Your task to perform on an android device: refresh tabs in the chrome app Image 0: 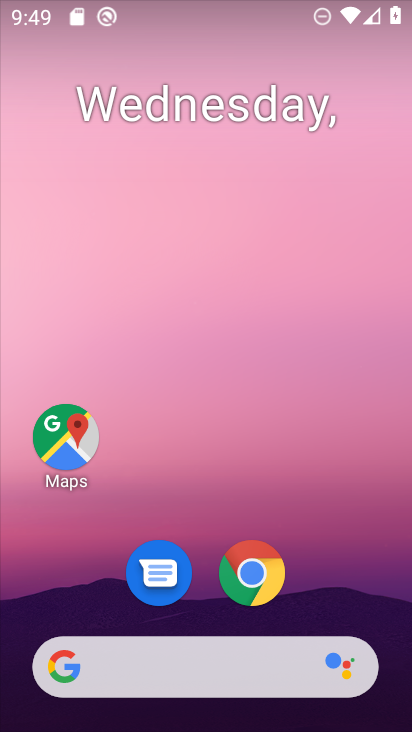
Step 0: click (254, 582)
Your task to perform on an android device: refresh tabs in the chrome app Image 1: 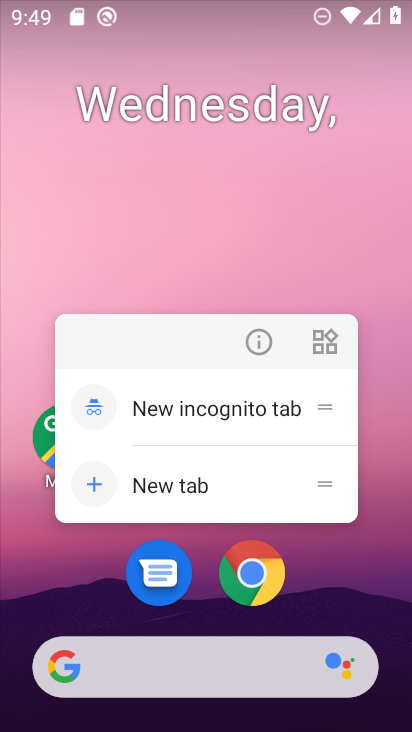
Step 1: click (254, 569)
Your task to perform on an android device: refresh tabs in the chrome app Image 2: 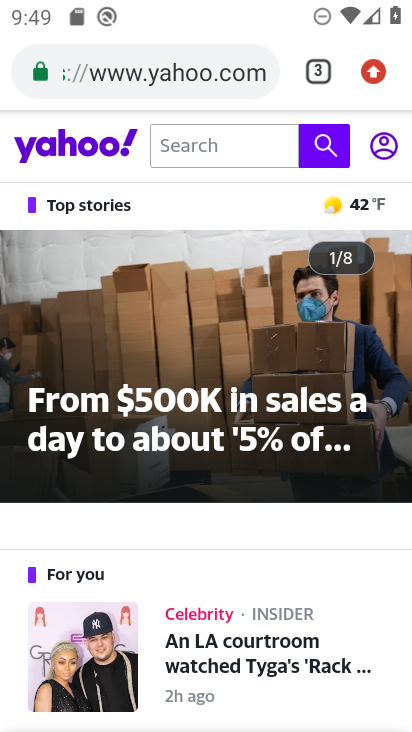
Step 2: click (374, 71)
Your task to perform on an android device: refresh tabs in the chrome app Image 3: 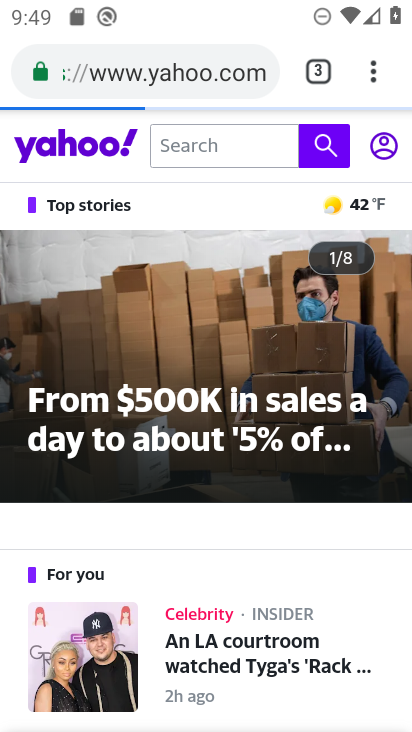
Step 3: click (374, 71)
Your task to perform on an android device: refresh tabs in the chrome app Image 4: 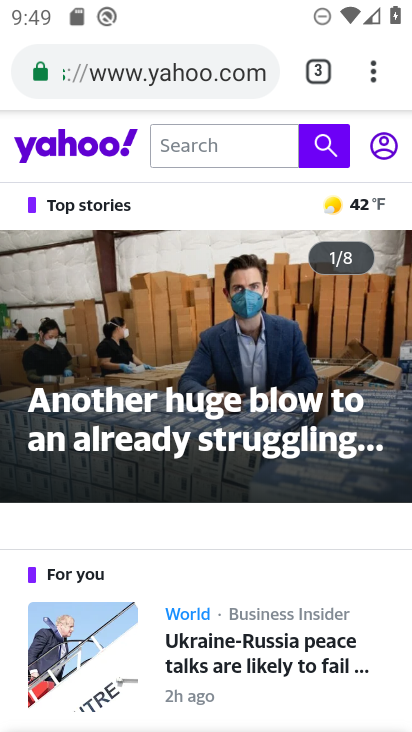
Step 4: click (374, 71)
Your task to perform on an android device: refresh tabs in the chrome app Image 5: 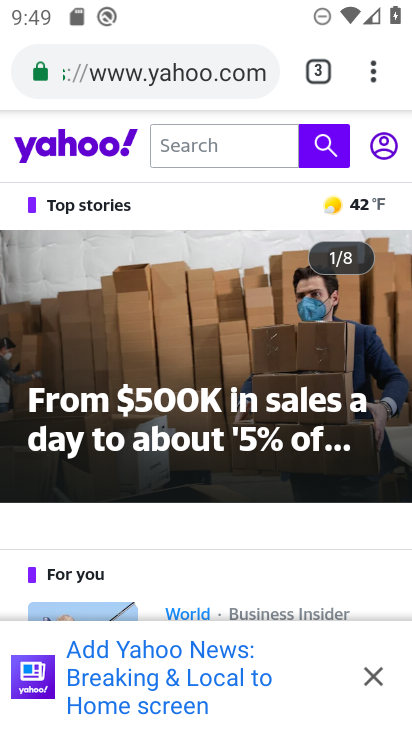
Step 5: click (374, 71)
Your task to perform on an android device: refresh tabs in the chrome app Image 6: 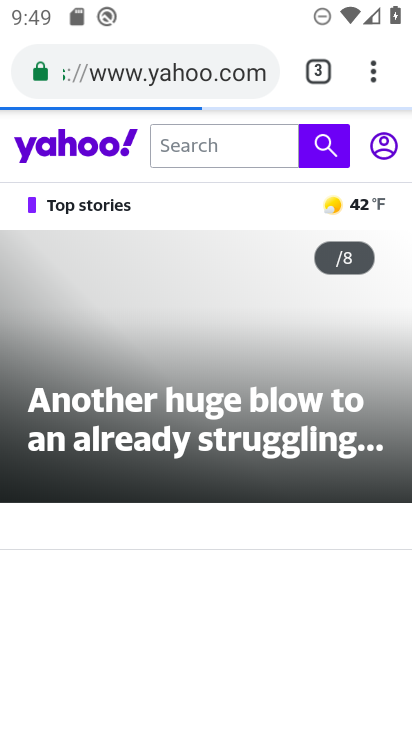
Step 6: click (374, 71)
Your task to perform on an android device: refresh tabs in the chrome app Image 7: 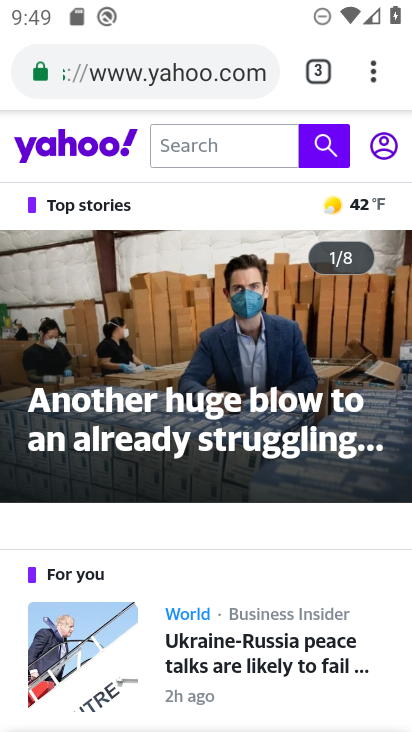
Step 7: click (374, 71)
Your task to perform on an android device: refresh tabs in the chrome app Image 8: 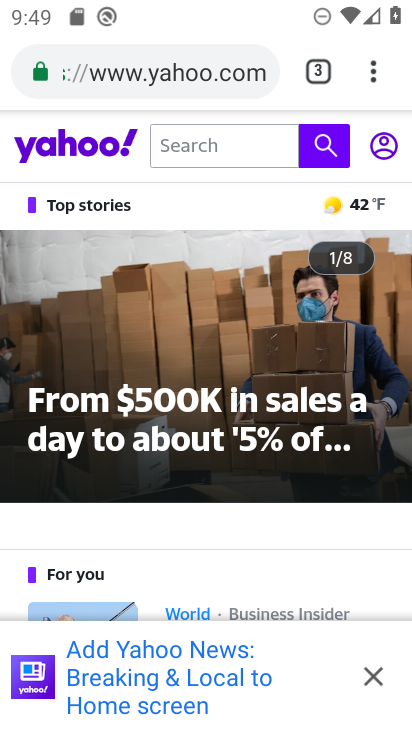
Step 8: click (370, 64)
Your task to perform on an android device: refresh tabs in the chrome app Image 9: 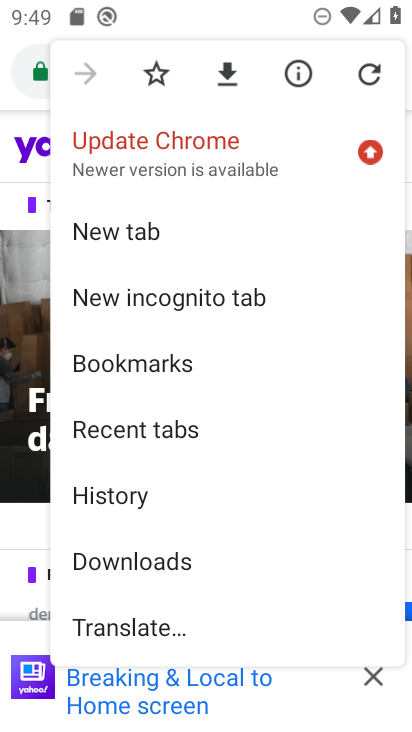
Step 9: click (370, 72)
Your task to perform on an android device: refresh tabs in the chrome app Image 10: 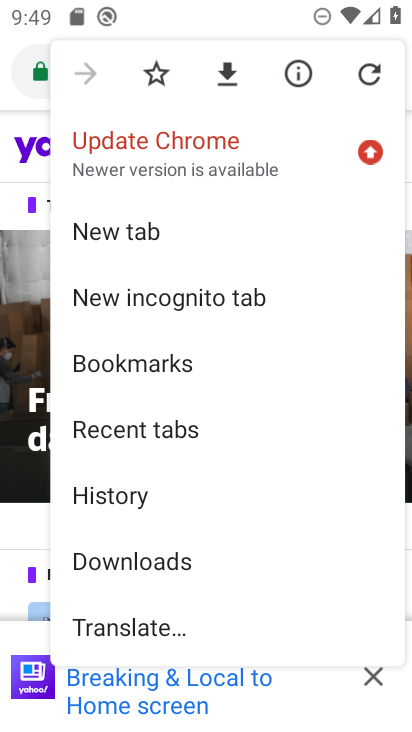
Step 10: click (373, 63)
Your task to perform on an android device: refresh tabs in the chrome app Image 11: 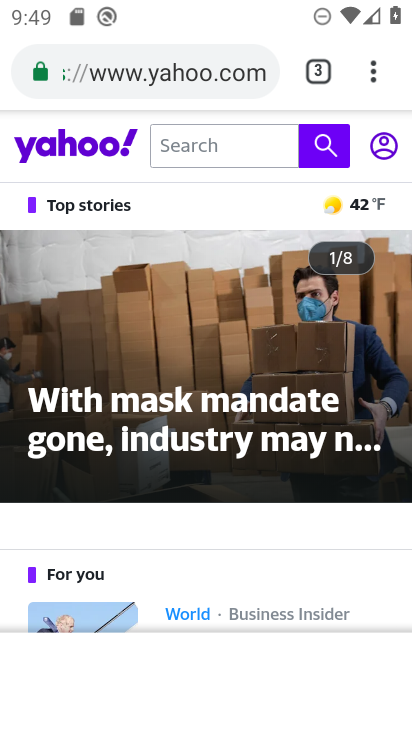
Step 11: task complete